Your task to perform on an android device: Search for sushi restaurants on Maps Image 0: 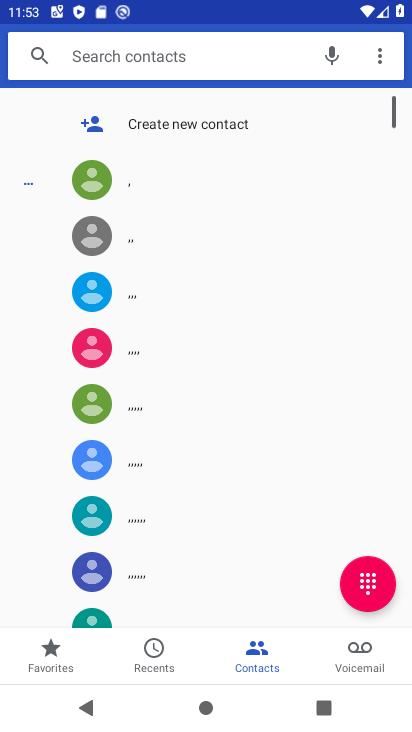
Step 0: press home button
Your task to perform on an android device: Search for sushi restaurants on Maps Image 1: 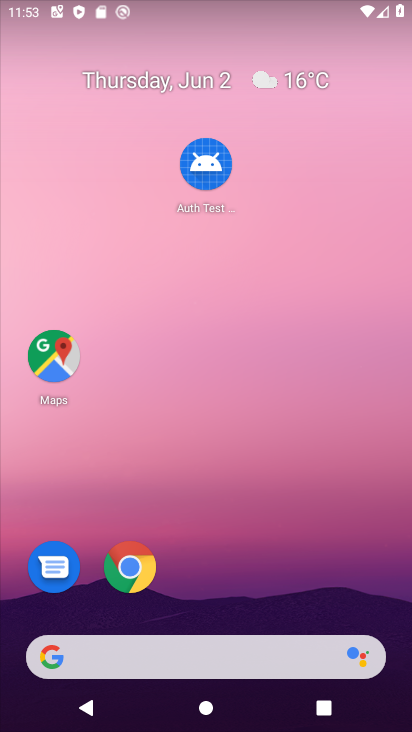
Step 1: click (53, 373)
Your task to perform on an android device: Search for sushi restaurants on Maps Image 2: 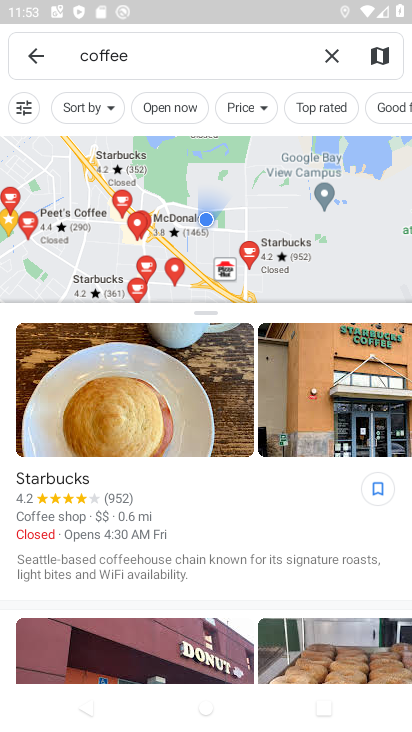
Step 2: click (333, 53)
Your task to perform on an android device: Search for sushi restaurants on Maps Image 3: 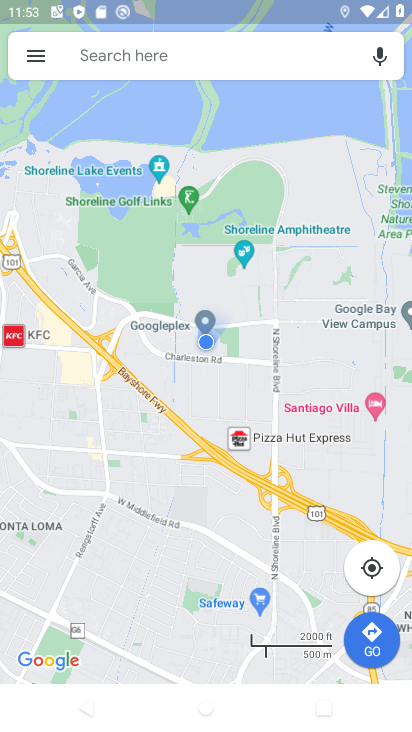
Step 3: click (195, 70)
Your task to perform on an android device: Search for sushi restaurants on Maps Image 4: 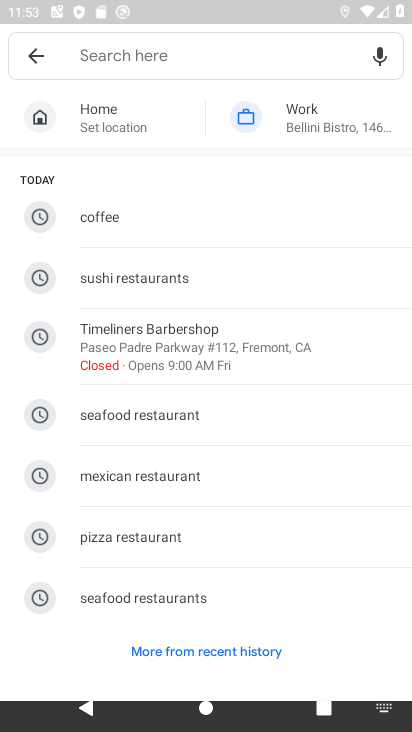
Step 4: click (109, 283)
Your task to perform on an android device: Search for sushi restaurants on Maps Image 5: 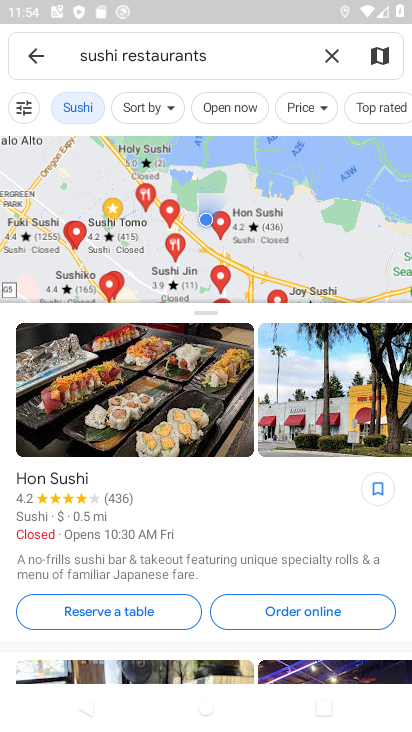
Step 5: task complete